Your task to perform on an android device: Open location settings Image 0: 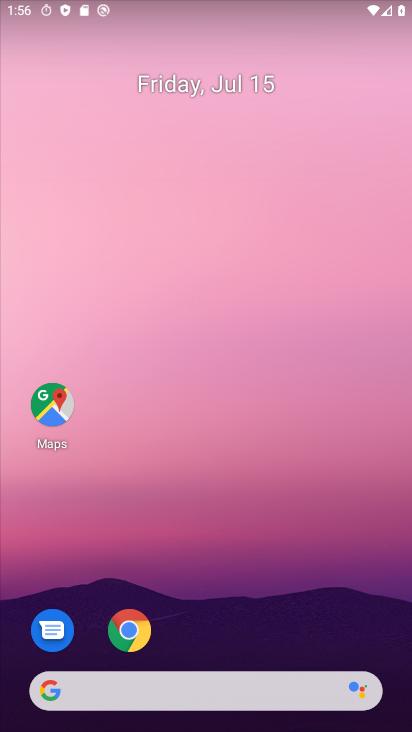
Step 0: click (218, 146)
Your task to perform on an android device: Open location settings Image 1: 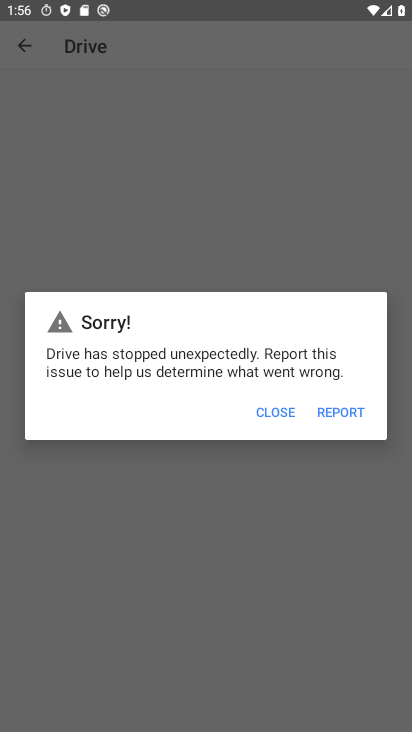
Step 1: press home button
Your task to perform on an android device: Open location settings Image 2: 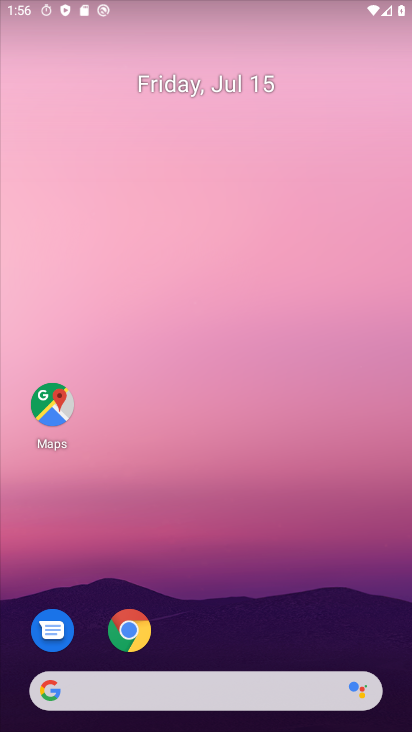
Step 2: drag from (196, 633) to (251, 164)
Your task to perform on an android device: Open location settings Image 3: 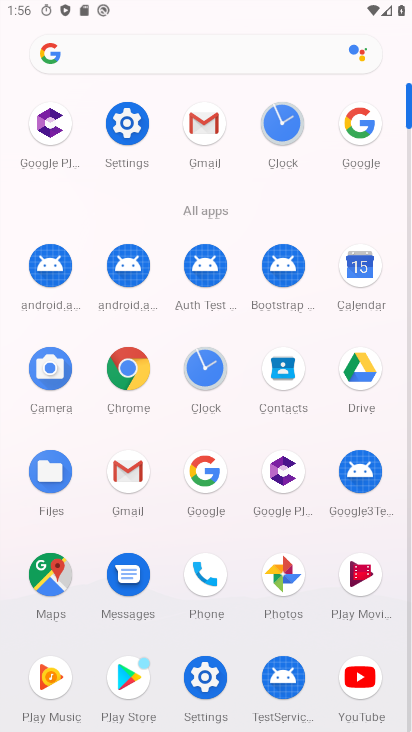
Step 3: click (128, 126)
Your task to perform on an android device: Open location settings Image 4: 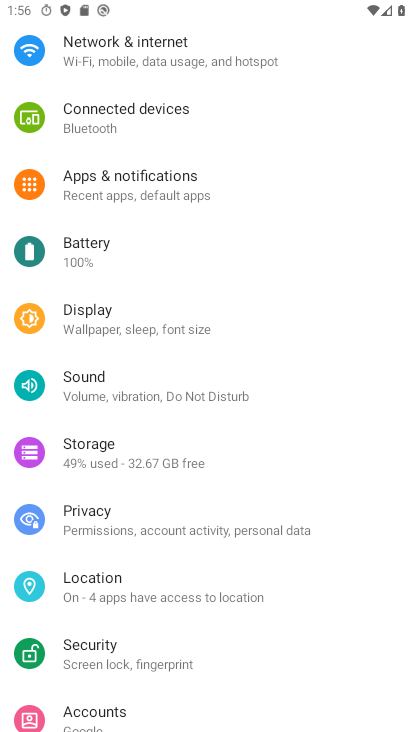
Step 4: click (144, 572)
Your task to perform on an android device: Open location settings Image 5: 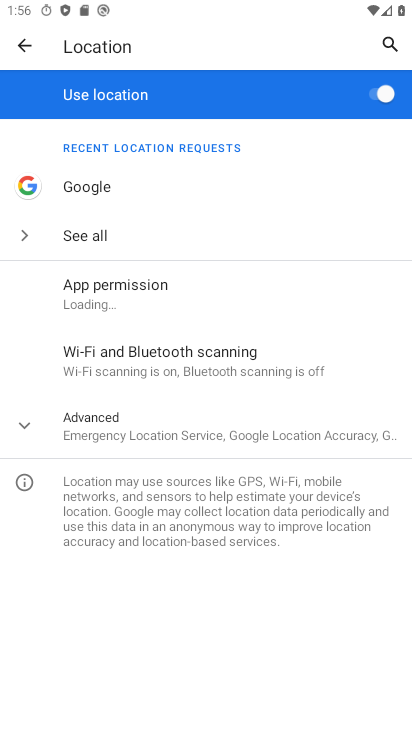
Step 5: task complete